Your task to perform on an android device: Go to accessibility settings Image 0: 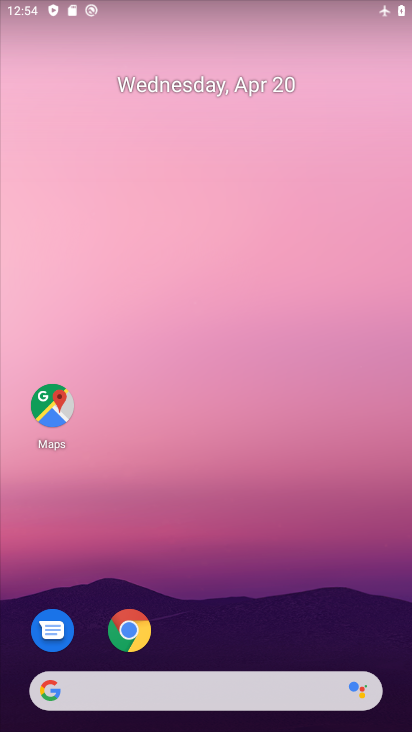
Step 0: drag from (252, 618) to (244, 290)
Your task to perform on an android device: Go to accessibility settings Image 1: 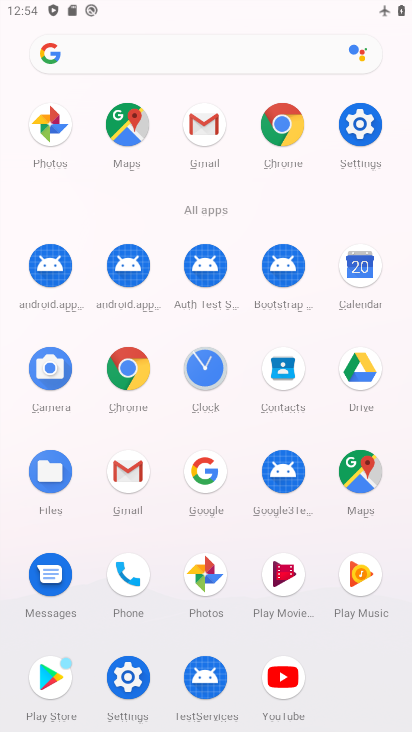
Step 1: click (122, 679)
Your task to perform on an android device: Go to accessibility settings Image 2: 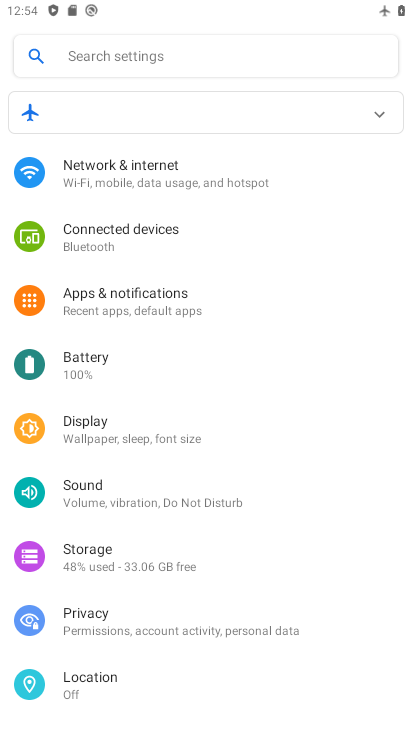
Step 2: drag from (140, 675) to (84, 270)
Your task to perform on an android device: Go to accessibility settings Image 3: 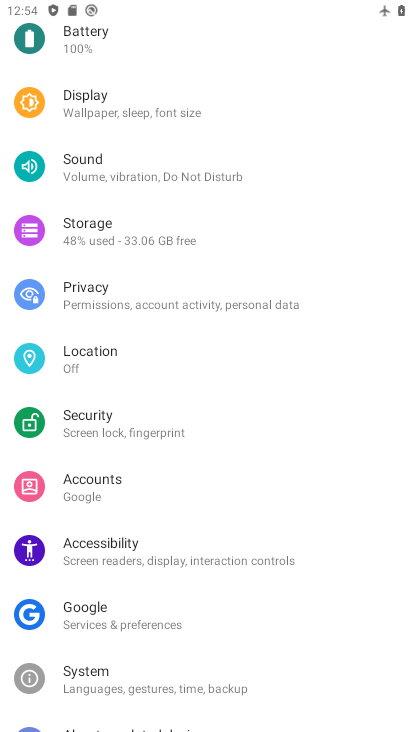
Step 3: click (159, 552)
Your task to perform on an android device: Go to accessibility settings Image 4: 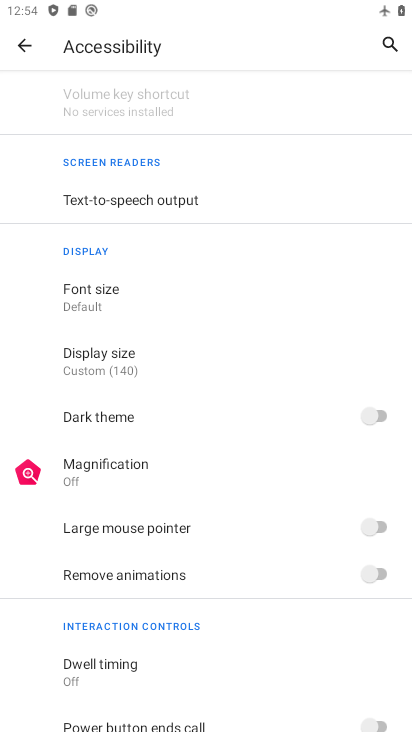
Step 4: task complete